Your task to perform on an android device: Open wifi settings Image 0: 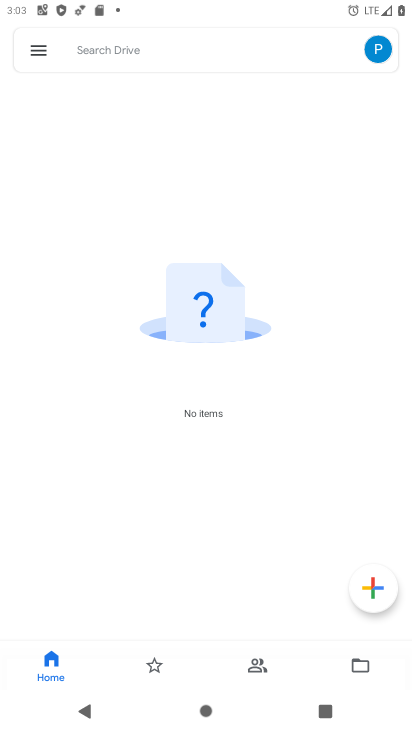
Step 0: press home button
Your task to perform on an android device: Open wifi settings Image 1: 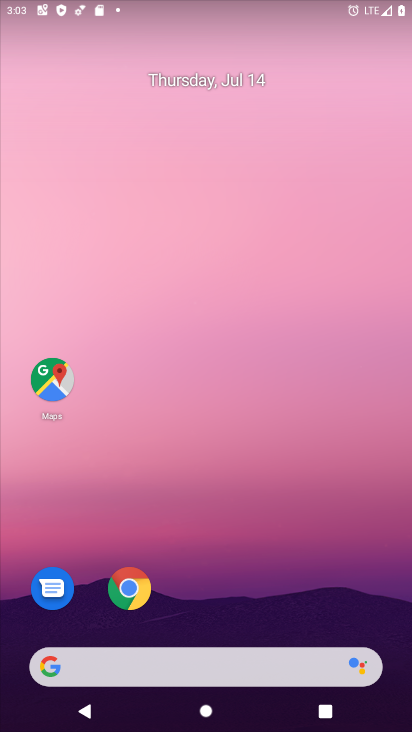
Step 1: drag from (150, 602) to (193, 319)
Your task to perform on an android device: Open wifi settings Image 2: 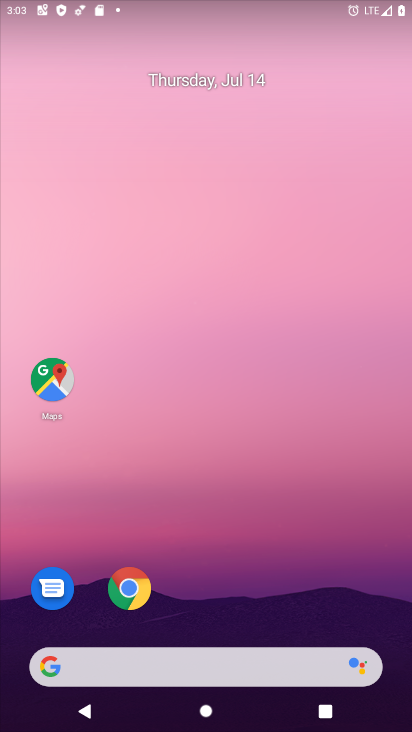
Step 2: drag from (228, 356) to (245, 203)
Your task to perform on an android device: Open wifi settings Image 3: 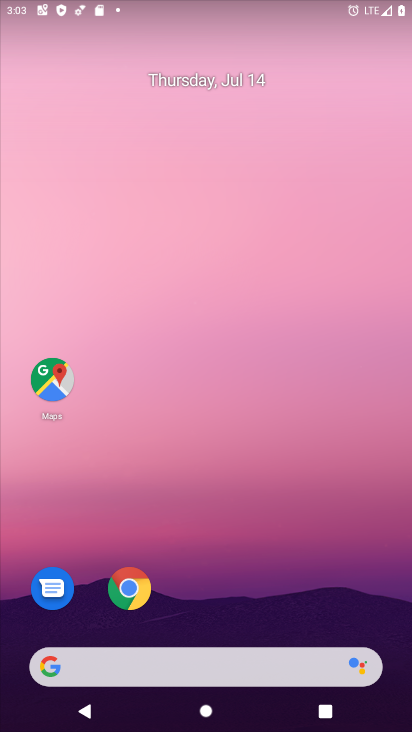
Step 3: drag from (181, 554) to (222, 191)
Your task to perform on an android device: Open wifi settings Image 4: 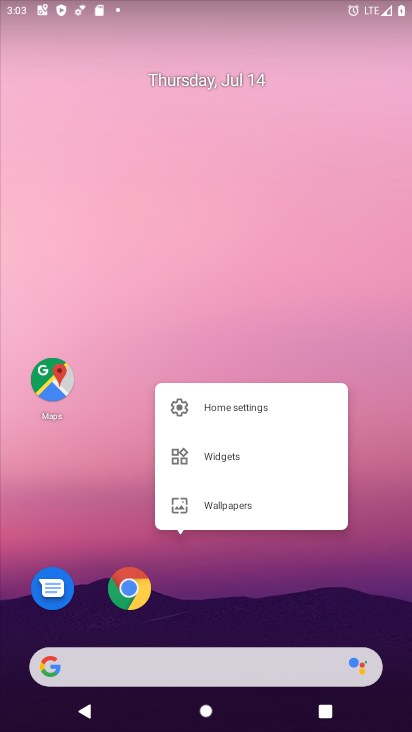
Step 4: click (285, 343)
Your task to perform on an android device: Open wifi settings Image 5: 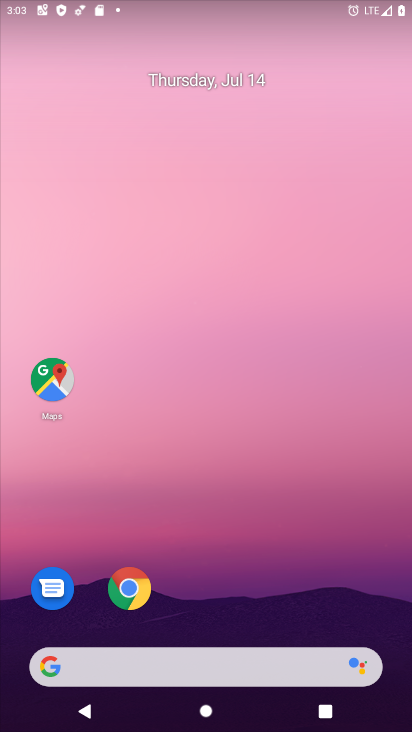
Step 5: drag from (175, 470) to (181, 192)
Your task to perform on an android device: Open wifi settings Image 6: 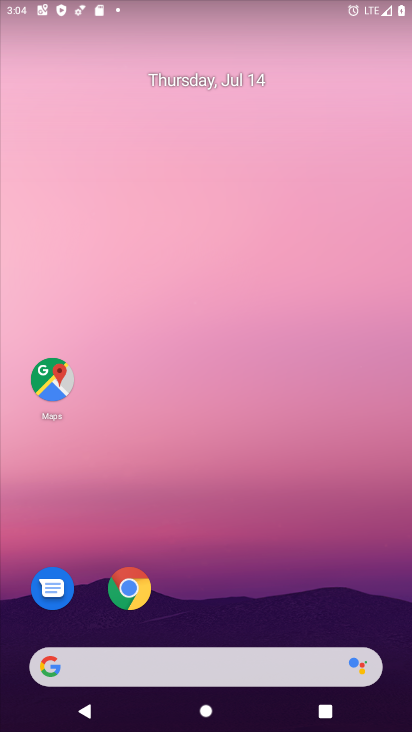
Step 6: drag from (243, 619) to (250, 5)
Your task to perform on an android device: Open wifi settings Image 7: 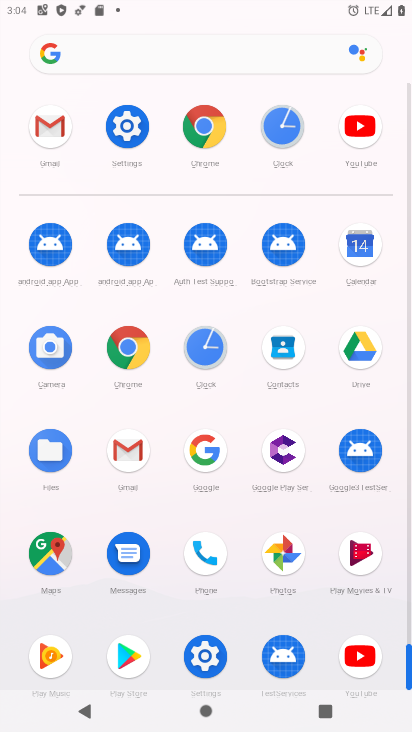
Step 7: click (124, 141)
Your task to perform on an android device: Open wifi settings Image 8: 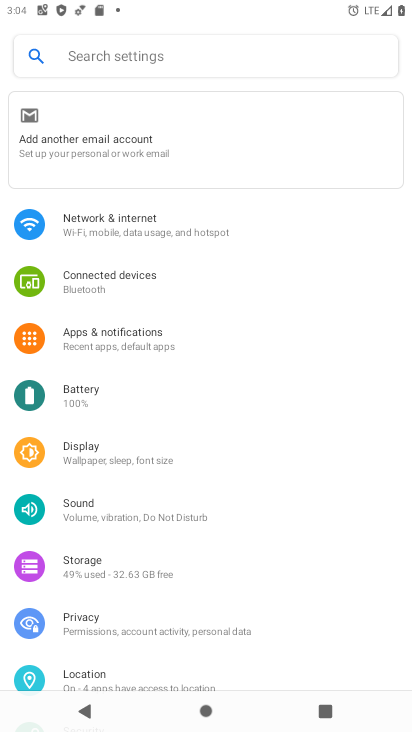
Step 8: click (140, 233)
Your task to perform on an android device: Open wifi settings Image 9: 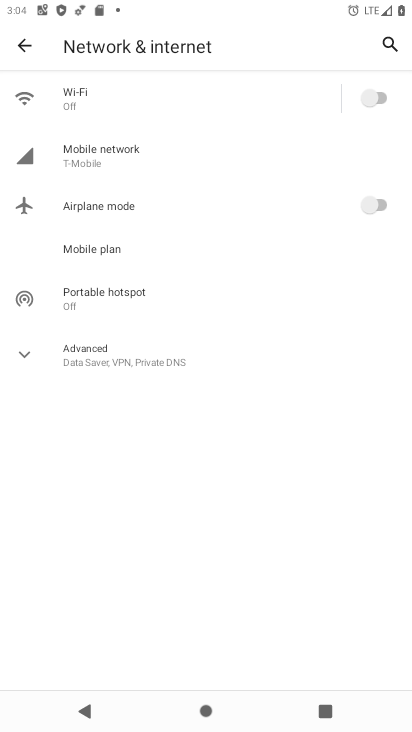
Step 9: click (198, 84)
Your task to perform on an android device: Open wifi settings Image 10: 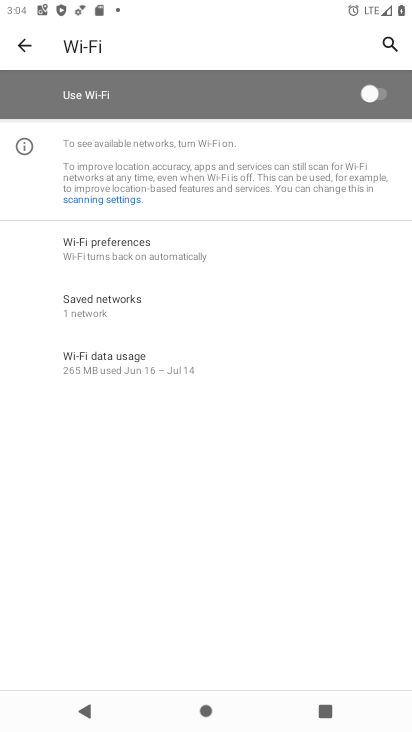
Step 10: task complete